Your task to perform on an android device: move an email to a new category in the gmail app Image 0: 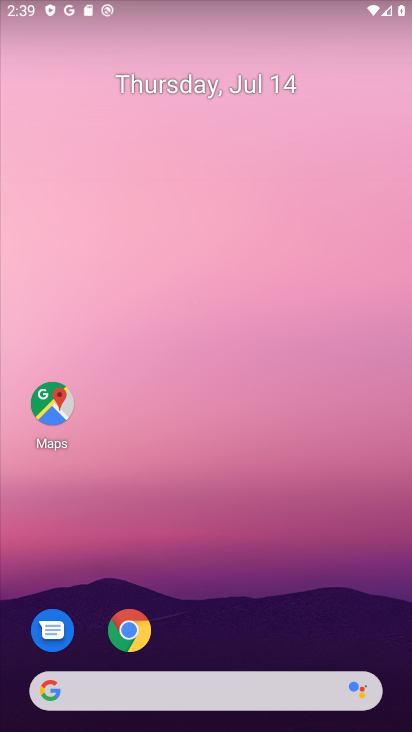
Step 0: drag from (291, 661) to (182, 136)
Your task to perform on an android device: move an email to a new category in the gmail app Image 1: 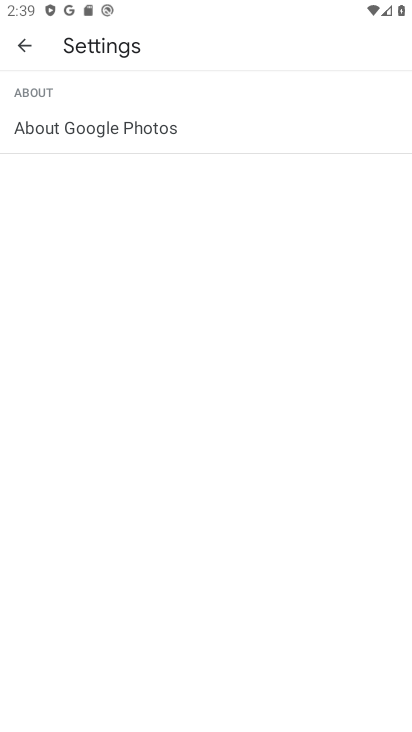
Step 1: click (15, 37)
Your task to perform on an android device: move an email to a new category in the gmail app Image 2: 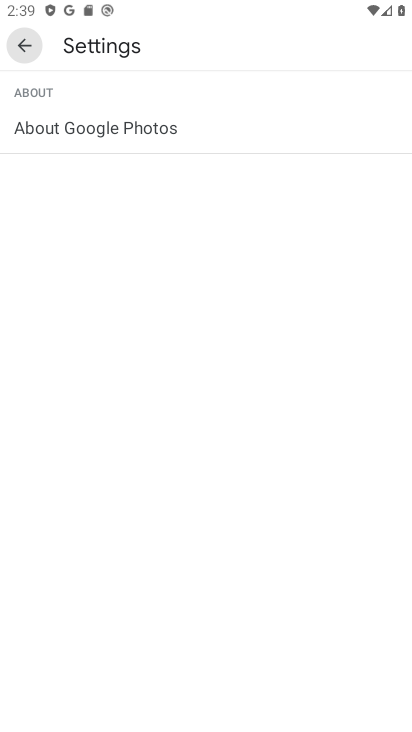
Step 2: click (19, 39)
Your task to perform on an android device: move an email to a new category in the gmail app Image 3: 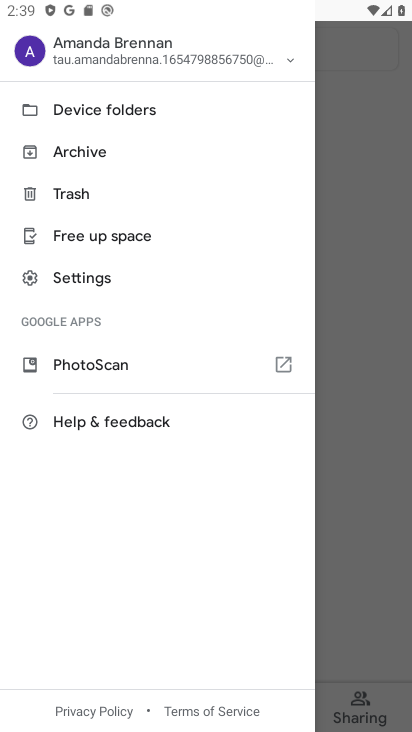
Step 3: click (359, 524)
Your task to perform on an android device: move an email to a new category in the gmail app Image 4: 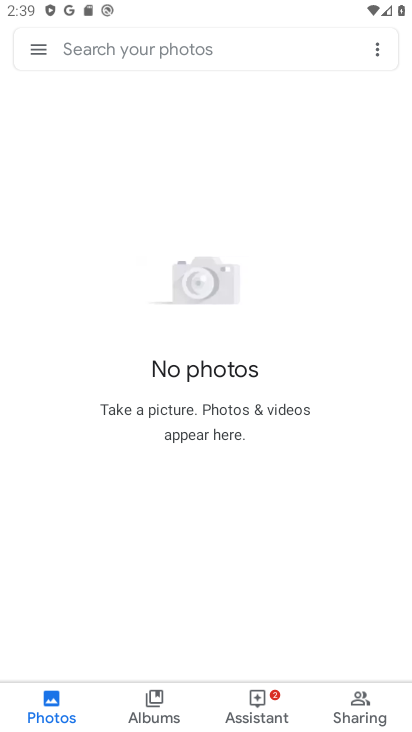
Step 4: click (349, 382)
Your task to perform on an android device: move an email to a new category in the gmail app Image 5: 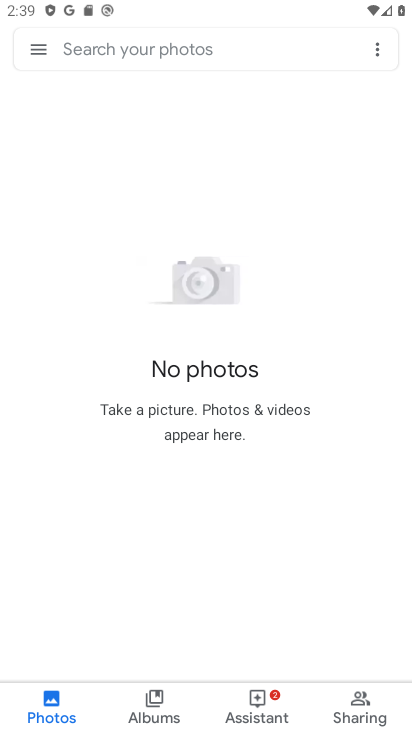
Step 5: press home button
Your task to perform on an android device: move an email to a new category in the gmail app Image 6: 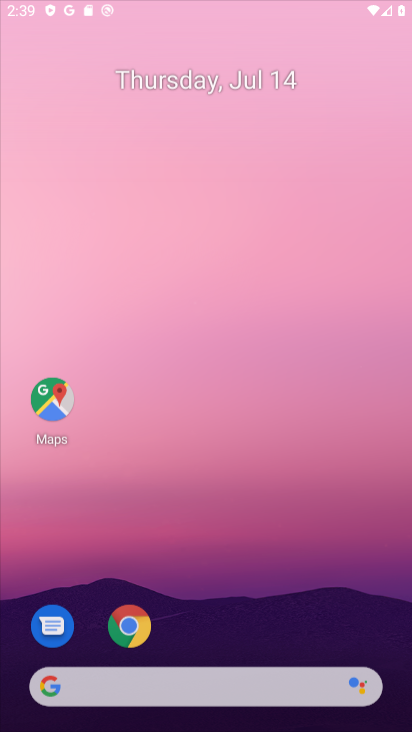
Step 6: press back button
Your task to perform on an android device: move an email to a new category in the gmail app Image 7: 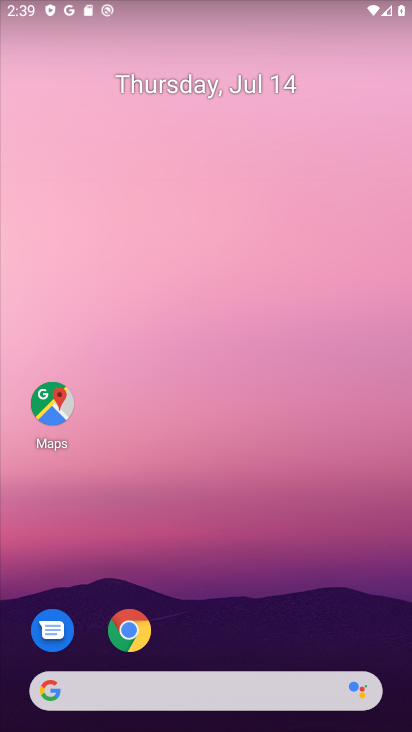
Step 7: click (251, 182)
Your task to perform on an android device: move an email to a new category in the gmail app Image 8: 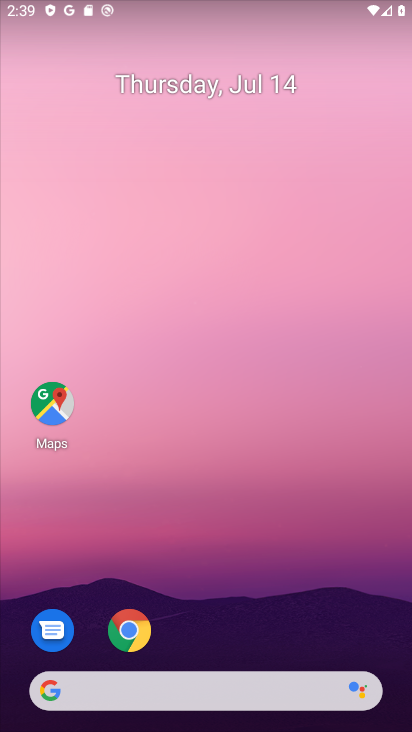
Step 8: drag from (247, 565) to (202, 138)
Your task to perform on an android device: move an email to a new category in the gmail app Image 9: 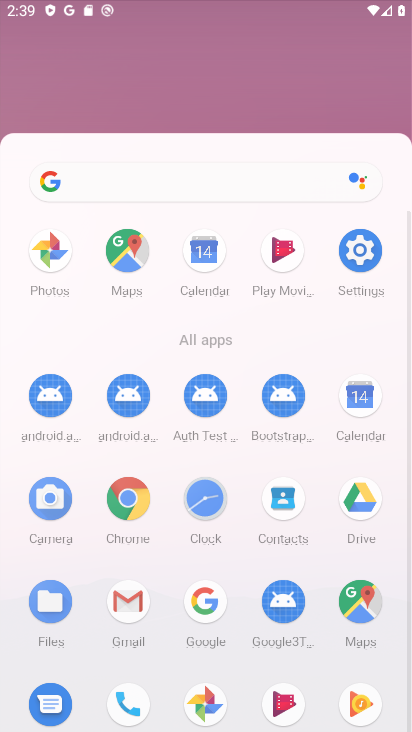
Step 9: drag from (201, 580) to (188, 162)
Your task to perform on an android device: move an email to a new category in the gmail app Image 10: 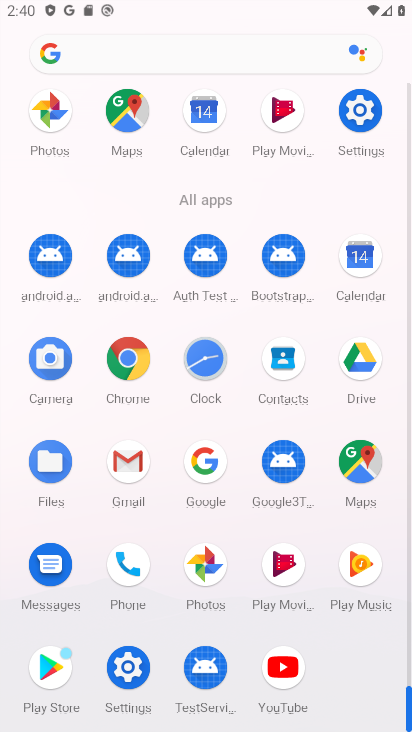
Step 10: click (128, 456)
Your task to perform on an android device: move an email to a new category in the gmail app Image 11: 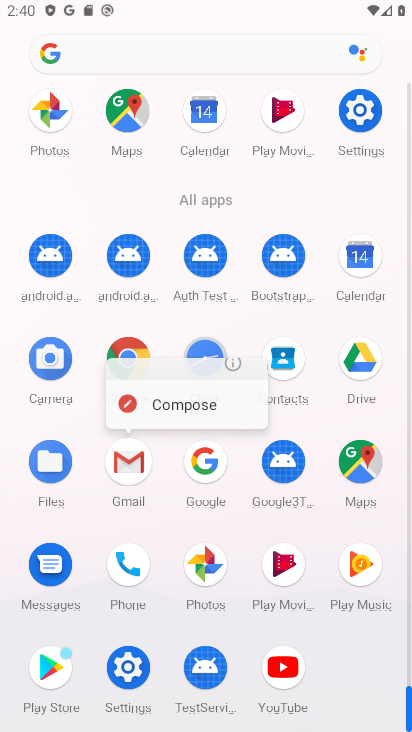
Step 11: click (127, 457)
Your task to perform on an android device: move an email to a new category in the gmail app Image 12: 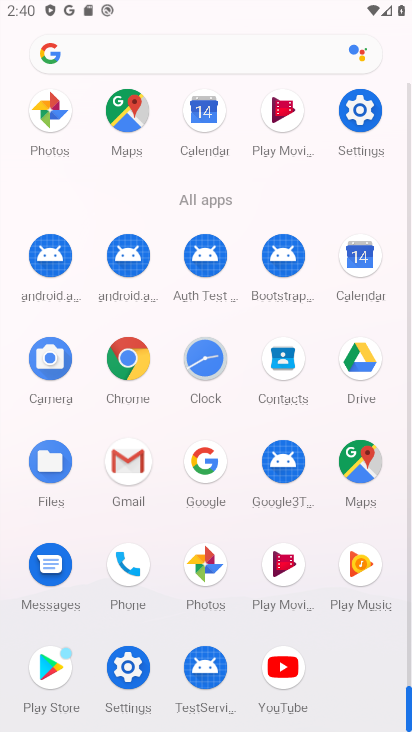
Step 12: click (129, 458)
Your task to perform on an android device: move an email to a new category in the gmail app Image 13: 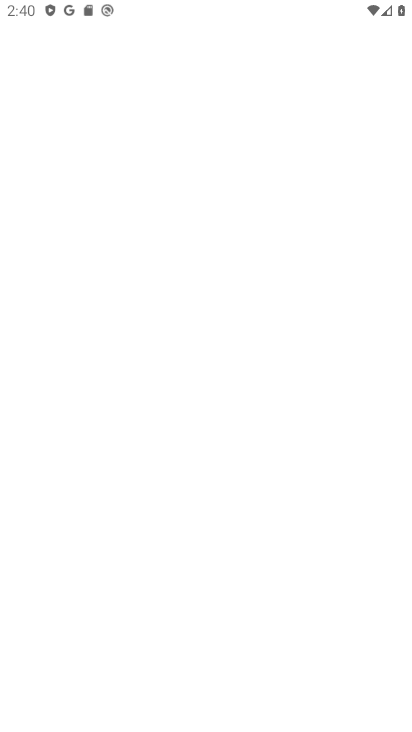
Step 13: click (129, 458)
Your task to perform on an android device: move an email to a new category in the gmail app Image 14: 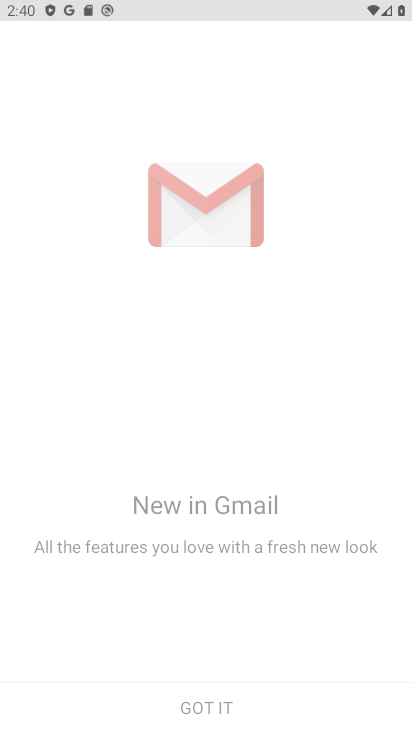
Step 14: click (129, 458)
Your task to perform on an android device: move an email to a new category in the gmail app Image 15: 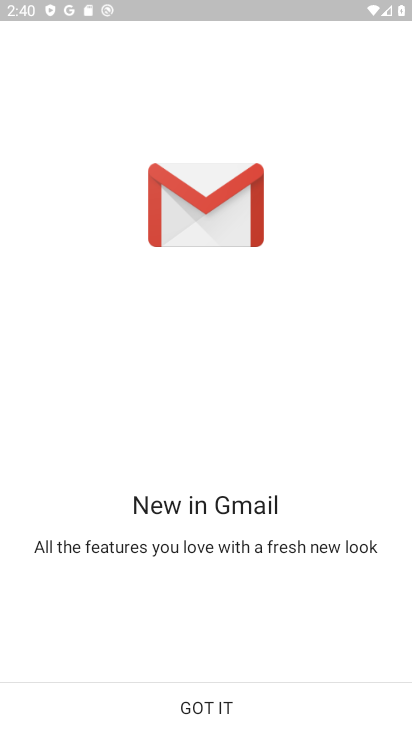
Step 15: click (130, 460)
Your task to perform on an android device: move an email to a new category in the gmail app Image 16: 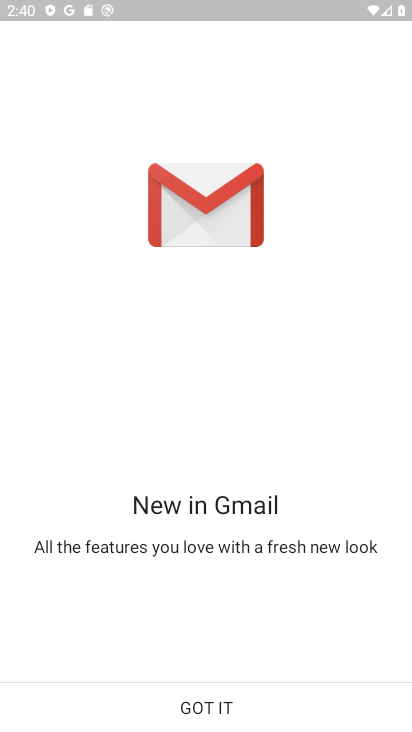
Step 16: click (212, 705)
Your task to perform on an android device: move an email to a new category in the gmail app Image 17: 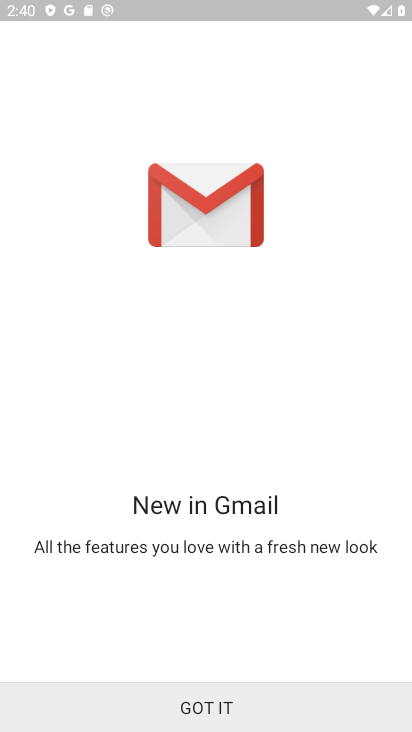
Step 17: click (221, 701)
Your task to perform on an android device: move an email to a new category in the gmail app Image 18: 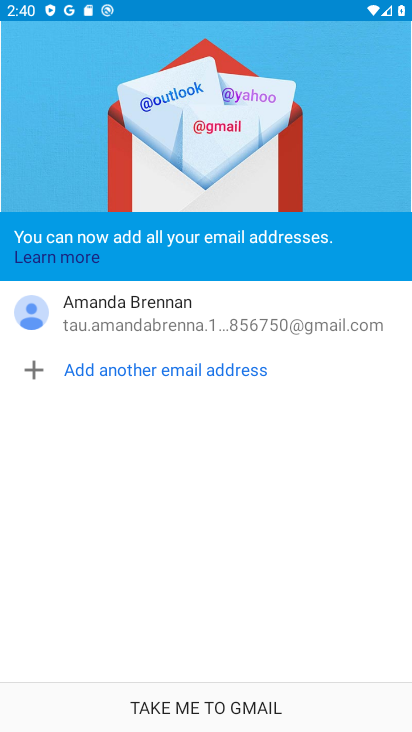
Step 18: click (227, 700)
Your task to perform on an android device: move an email to a new category in the gmail app Image 19: 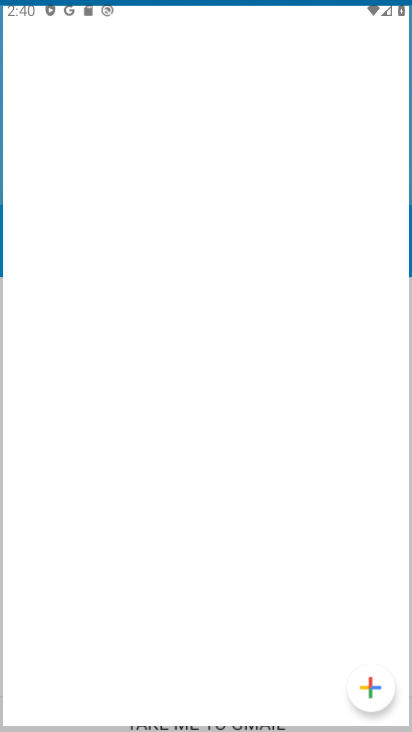
Step 19: click (227, 700)
Your task to perform on an android device: move an email to a new category in the gmail app Image 20: 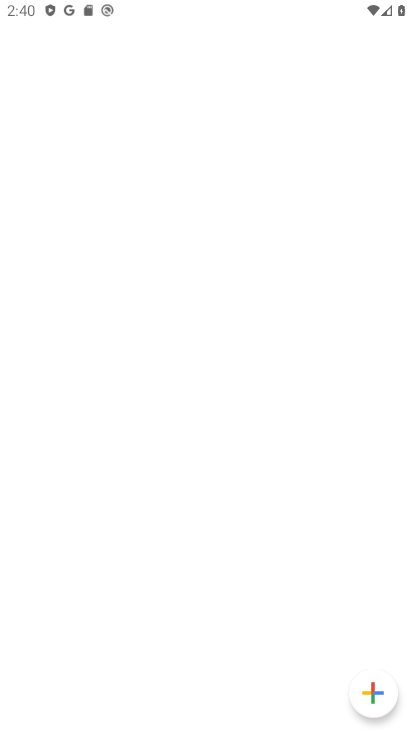
Step 20: click (228, 701)
Your task to perform on an android device: move an email to a new category in the gmail app Image 21: 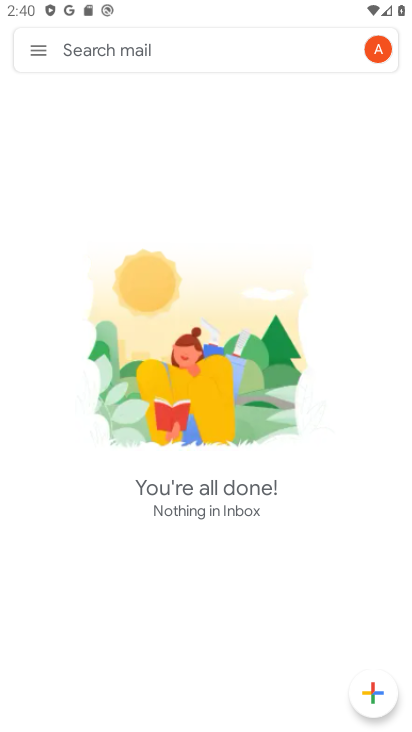
Step 21: click (41, 50)
Your task to perform on an android device: move an email to a new category in the gmail app Image 22: 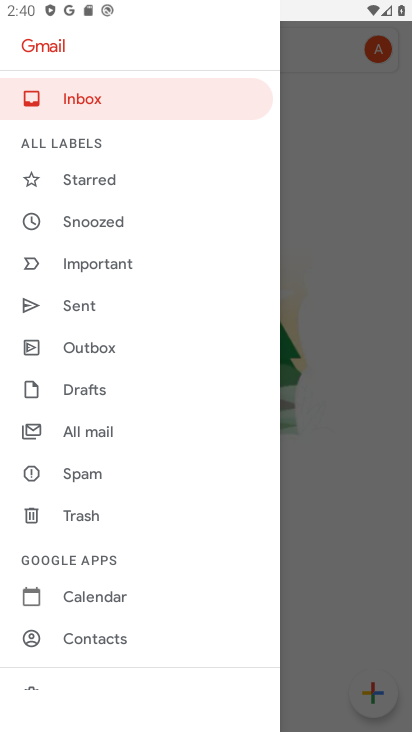
Step 22: click (42, 49)
Your task to perform on an android device: move an email to a new category in the gmail app Image 23: 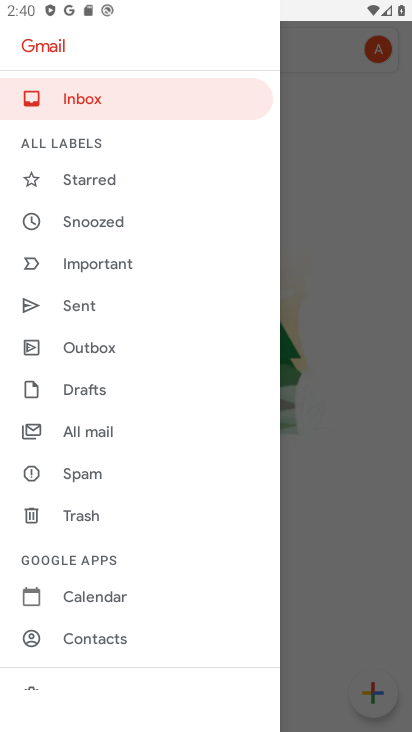
Step 23: click (75, 432)
Your task to perform on an android device: move an email to a new category in the gmail app Image 24: 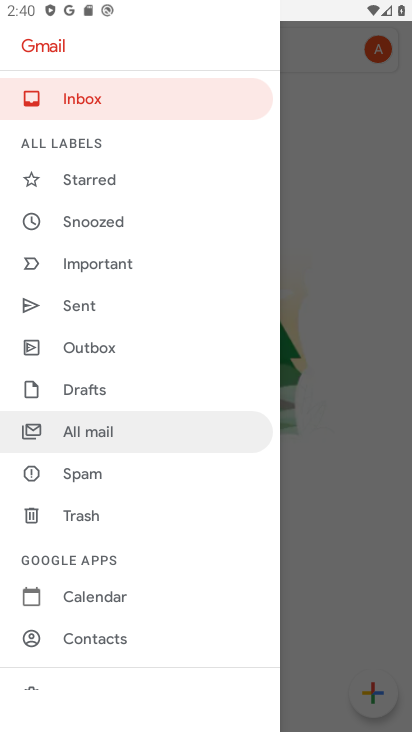
Step 24: click (77, 434)
Your task to perform on an android device: move an email to a new category in the gmail app Image 25: 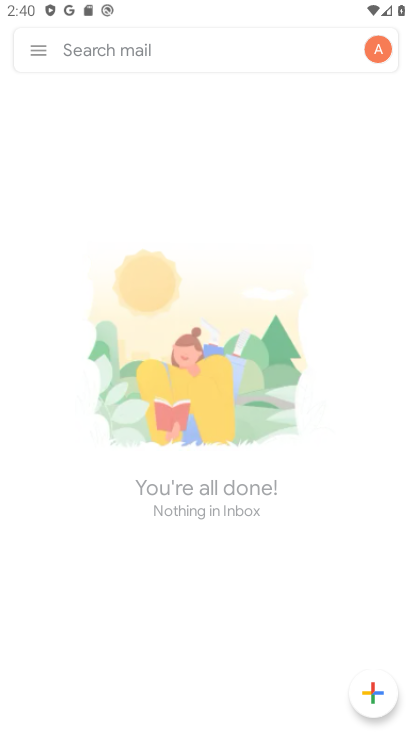
Step 25: click (78, 434)
Your task to perform on an android device: move an email to a new category in the gmail app Image 26: 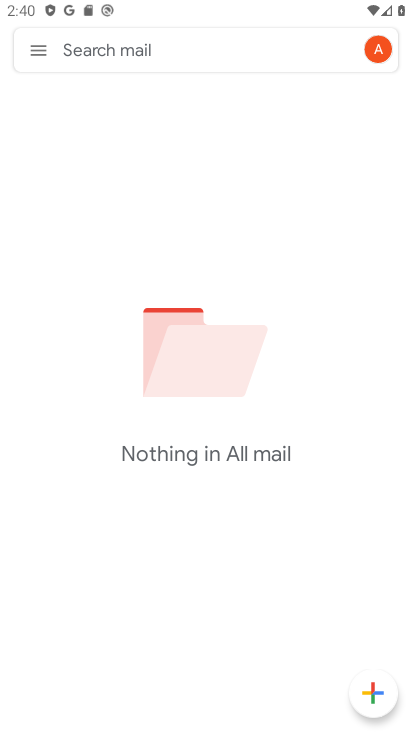
Step 26: task complete